Your task to perform on an android device: Open the phone app and click the voicemail tab. Image 0: 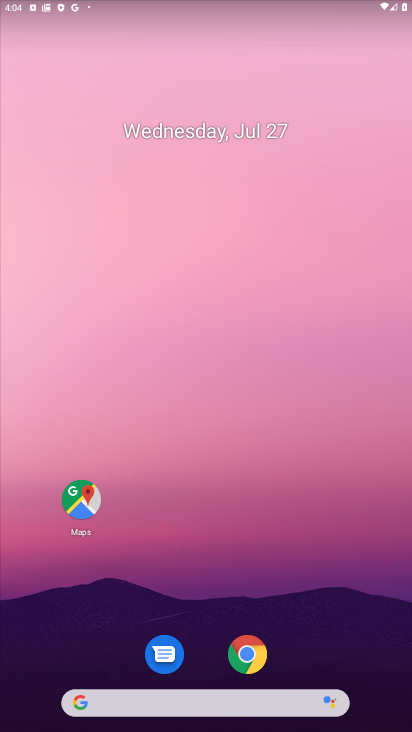
Step 0: drag from (222, 577) to (260, 96)
Your task to perform on an android device: Open the phone app and click the voicemail tab. Image 1: 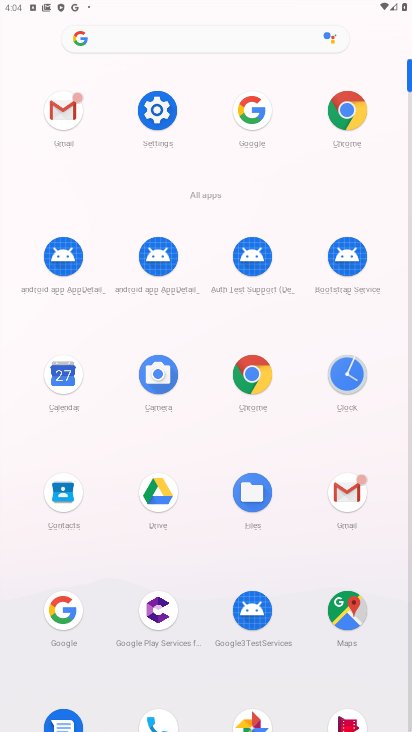
Step 1: drag from (196, 651) to (249, 190)
Your task to perform on an android device: Open the phone app and click the voicemail tab. Image 2: 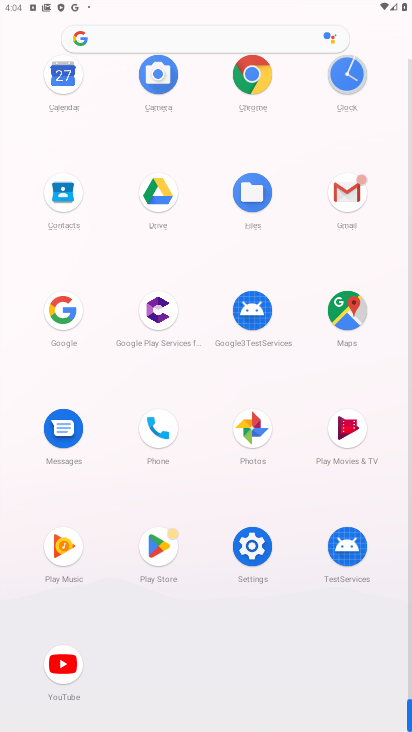
Step 2: click (158, 427)
Your task to perform on an android device: Open the phone app and click the voicemail tab. Image 3: 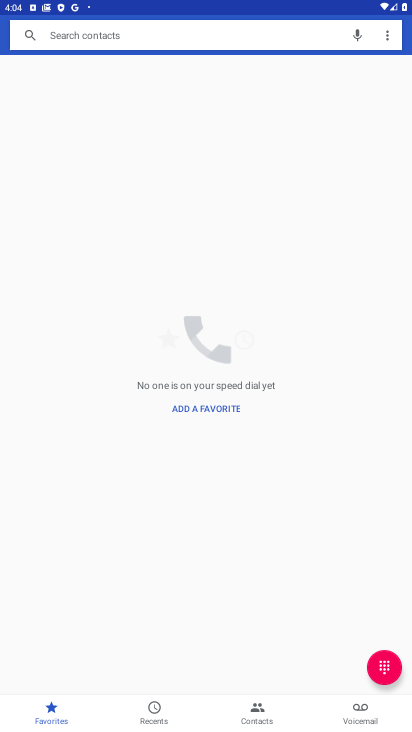
Step 3: click (364, 709)
Your task to perform on an android device: Open the phone app and click the voicemail tab. Image 4: 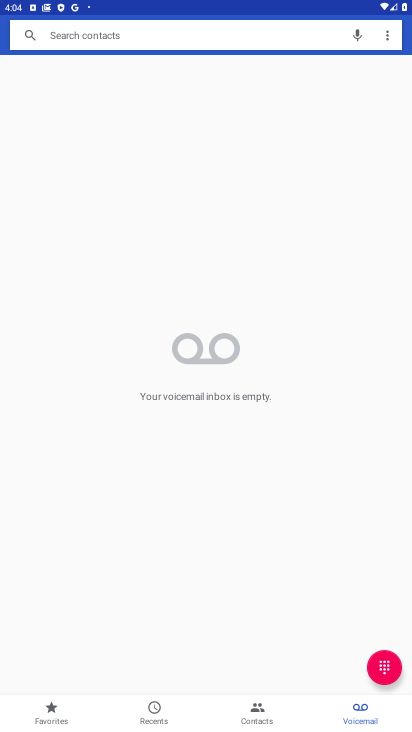
Step 4: task complete